Your task to perform on an android device: Go to Yahoo.com Image 0: 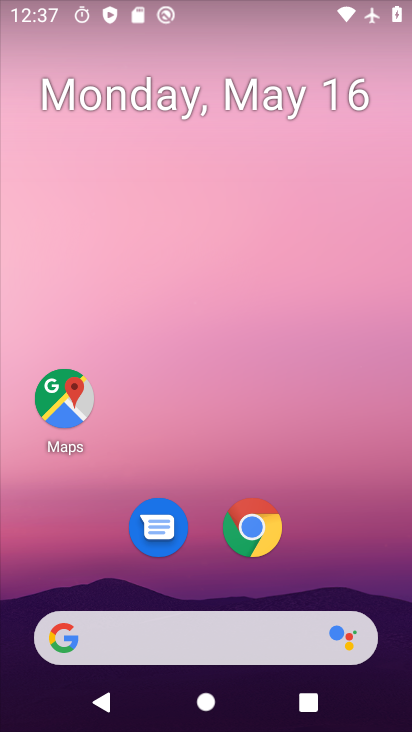
Step 0: press home button
Your task to perform on an android device: Go to Yahoo.com Image 1: 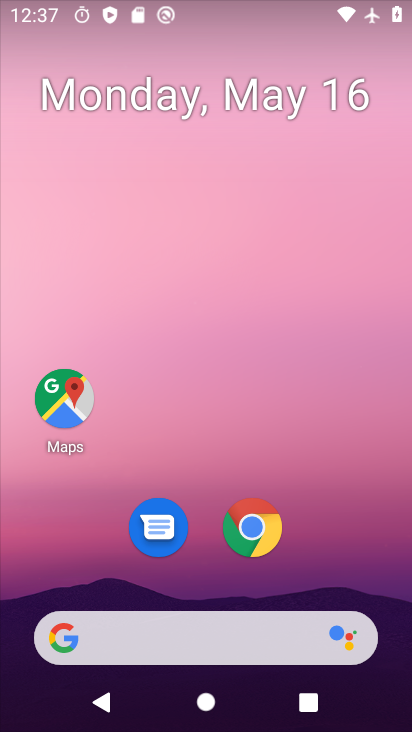
Step 1: click (261, 533)
Your task to perform on an android device: Go to Yahoo.com Image 2: 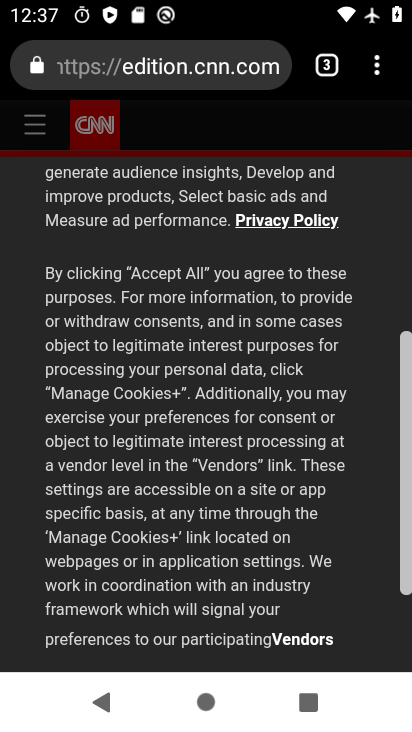
Step 2: drag from (372, 73) to (316, 127)
Your task to perform on an android device: Go to Yahoo.com Image 3: 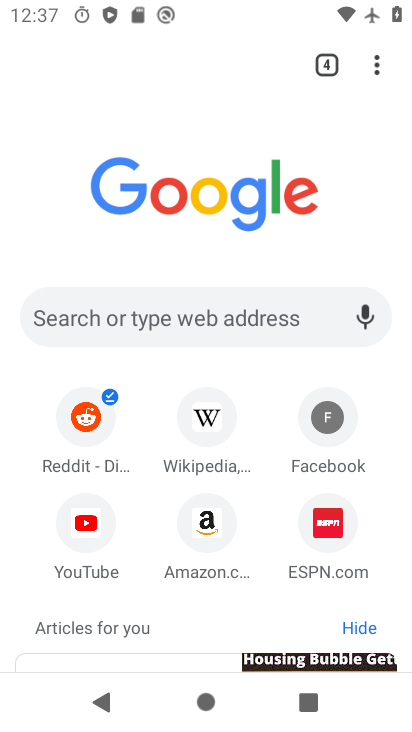
Step 3: click (171, 313)
Your task to perform on an android device: Go to Yahoo.com Image 4: 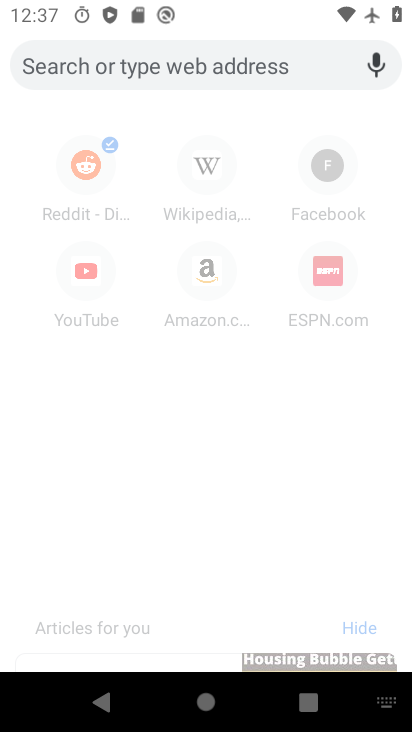
Step 4: type "yahoo.com"
Your task to perform on an android device: Go to Yahoo.com Image 5: 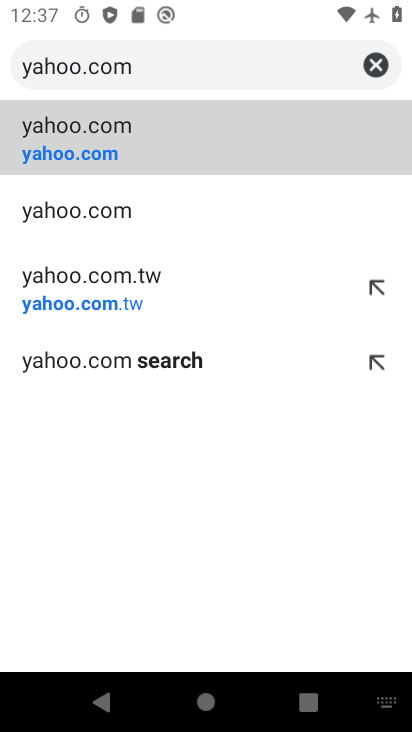
Step 5: click (108, 136)
Your task to perform on an android device: Go to Yahoo.com Image 6: 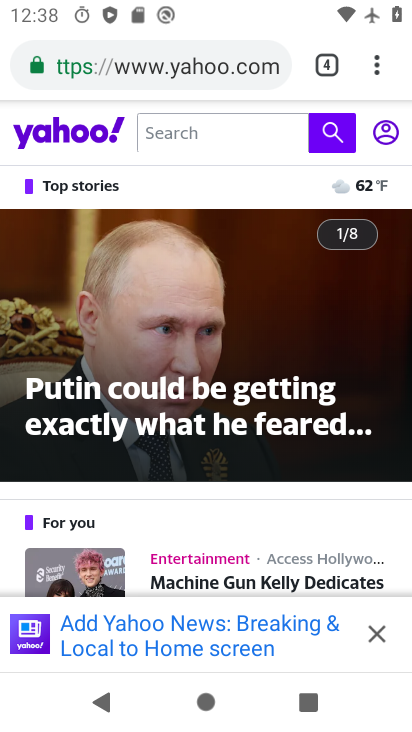
Step 6: task complete